Your task to perform on an android device: allow cookies in the chrome app Image 0: 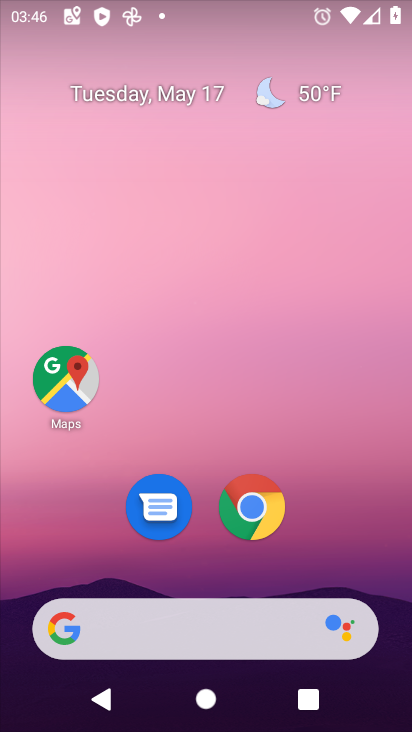
Step 0: click (239, 521)
Your task to perform on an android device: allow cookies in the chrome app Image 1: 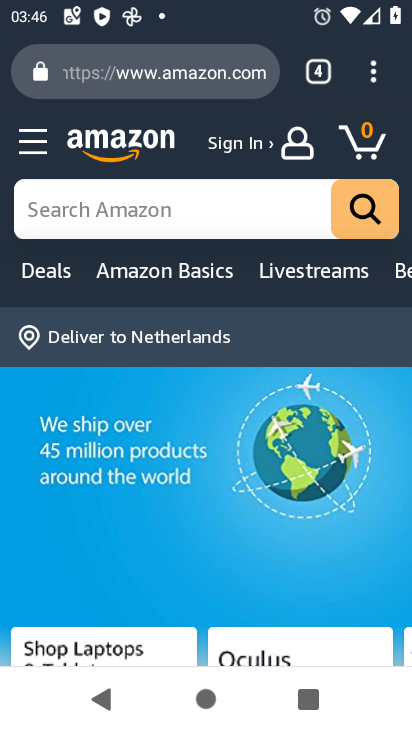
Step 1: click (372, 64)
Your task to perform on an android device: allow cookies in the chrome app Image 2: 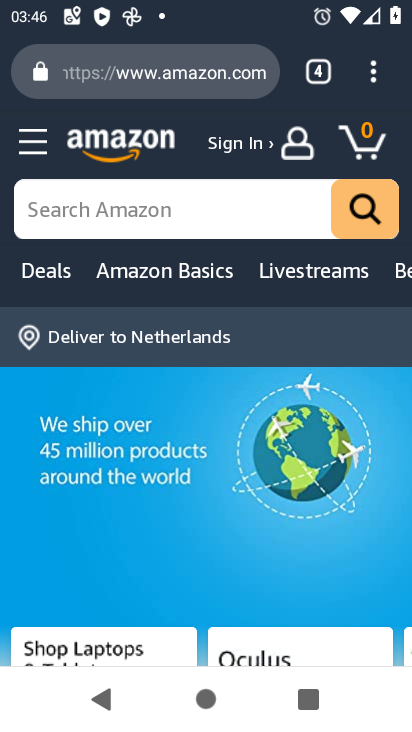
Step 2: click (373, 64)
Your task to perform on an android device: allow cookies in the chrome app Image 3: 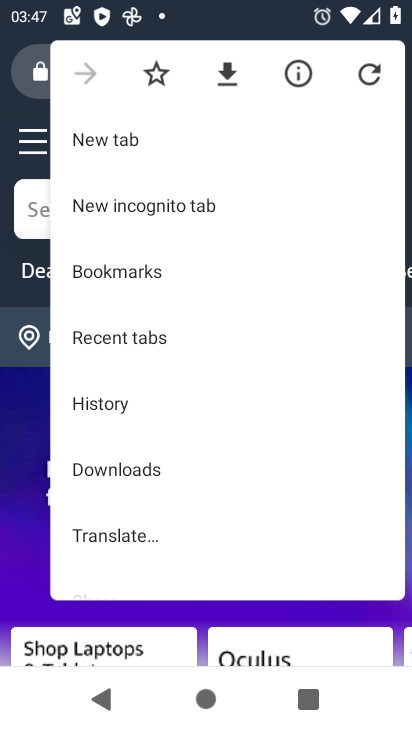
Step 3: drag from (219, 462) to (212, 108)
Your task to perform on an android device: allow cookies in the chrome app Image 4: 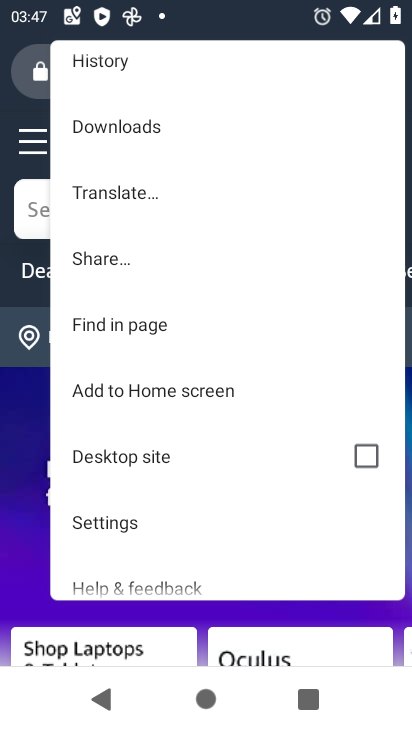
Step 4: click (169, 517)
Your task to perform on an android device: allow cookies in the chrome app Image 5: 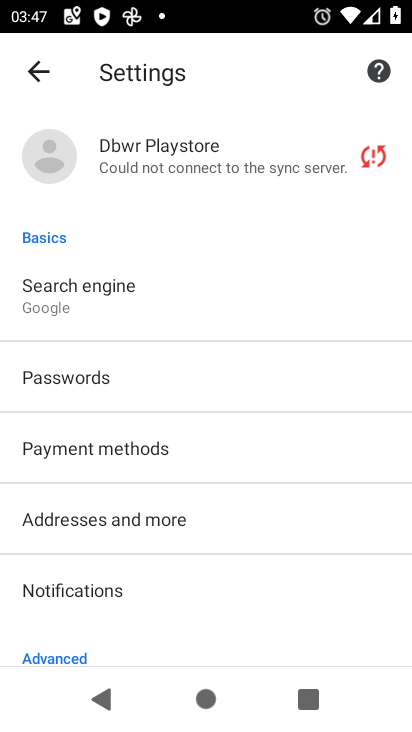
Step 5: drag from (197, 579) to (233, 191)
Your task to perform on an android device: allow cookies in the chrome app Image 6: 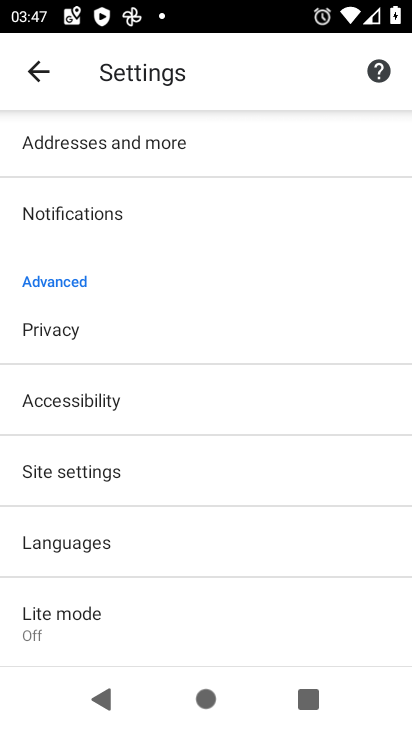
Step 6: click (133, 463)
Your task to perform on an android device: allow cookies in the chrome app Image 7: 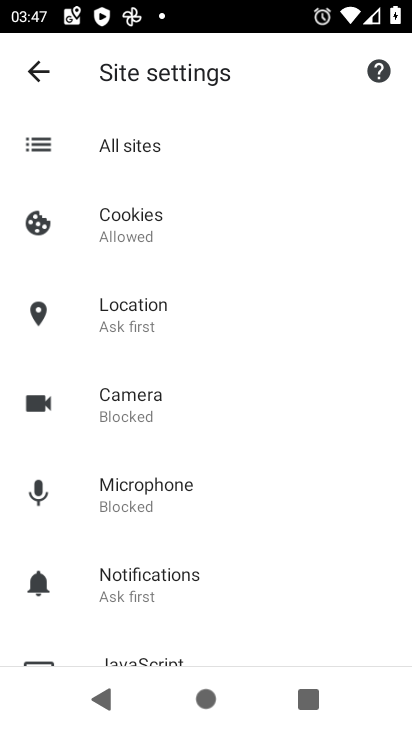
Step 7: drag from (237, 603) to (274, 219)
Your task to perform on an android device: allow cookies in the chrome app Image 8: 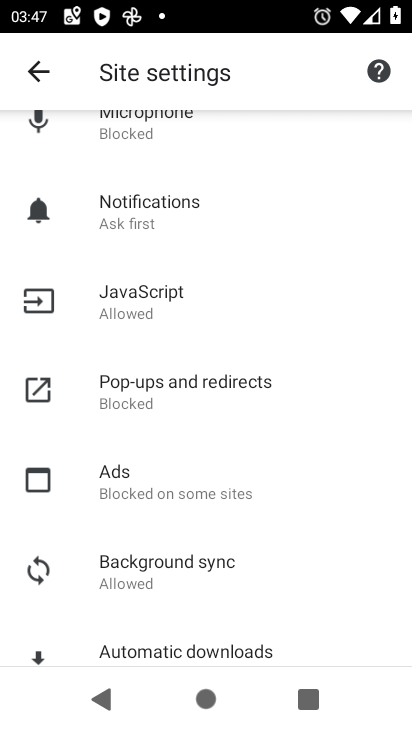
Step 8: drag from (278, 247) to (214, 579)
Your task to perform on an android device: allow cookies in the chrome app Image 9: 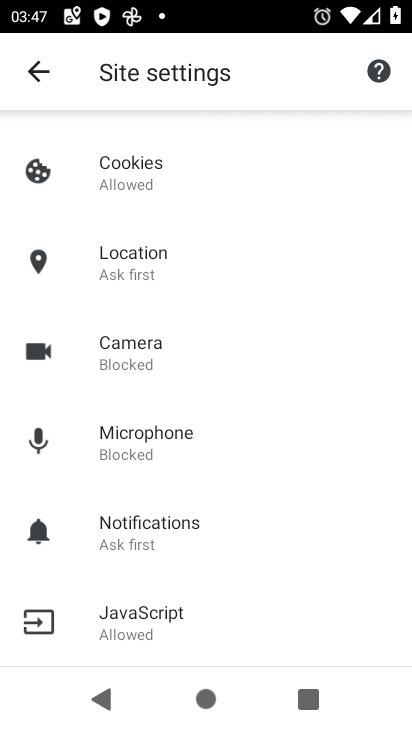
Step 9: click (148, 188)
Your task to perform on an android device: allow cookies in the chrome app Image 10: 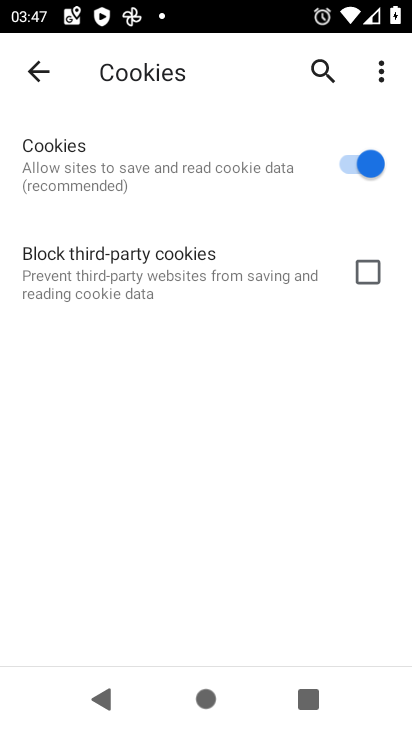
Step 10: task complete